Your task to perform on an android device: move a message to another label in the gmail app Image 0: 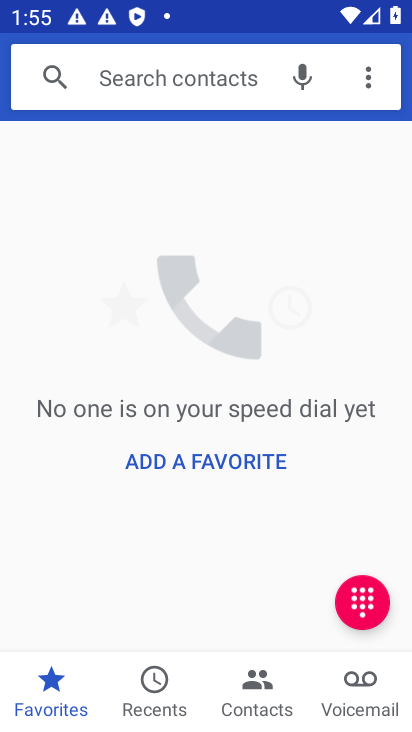
Step 0: press home button
Your task to perform on an android device: move a message to another label in the gmail app Image 1: 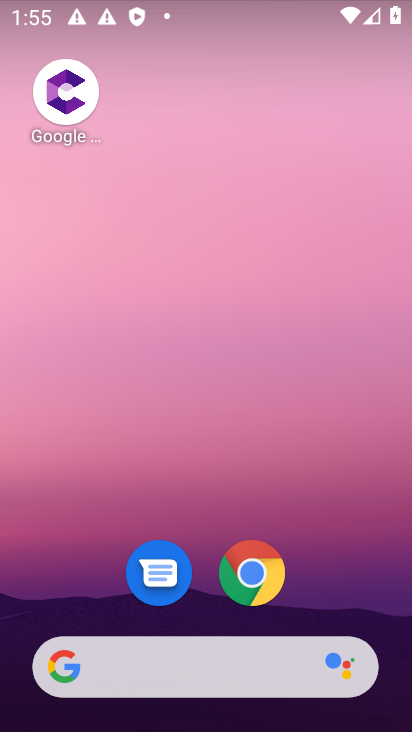
Step 1: drag from (338, 603) to (344, 231)
Your task to perform on an android device: move a message to another label in the gmail app Image 2: 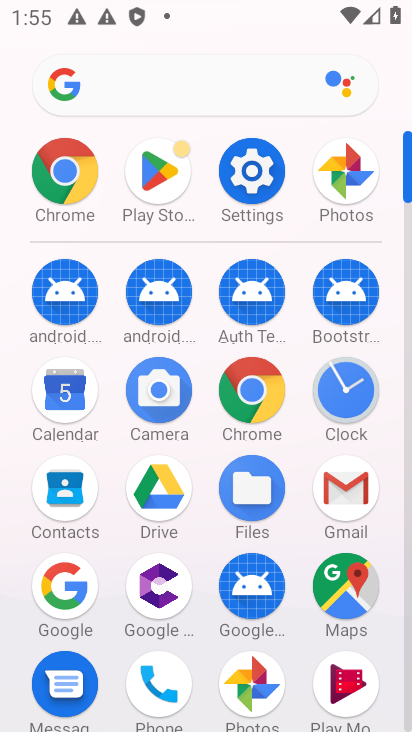
Step 2: click (342, 489)
Your task to perform on an android device: move a message to another label in the gmail app Image 3: 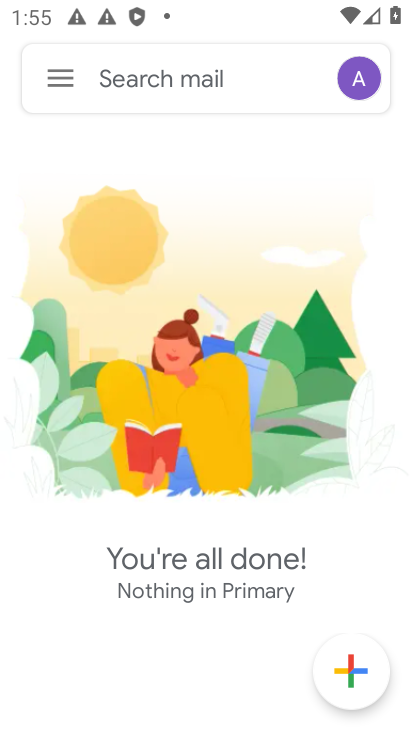
Step 3: click (55, 73)
Your task to perform on an android device: move a message to another label in the gmail app Image 4: 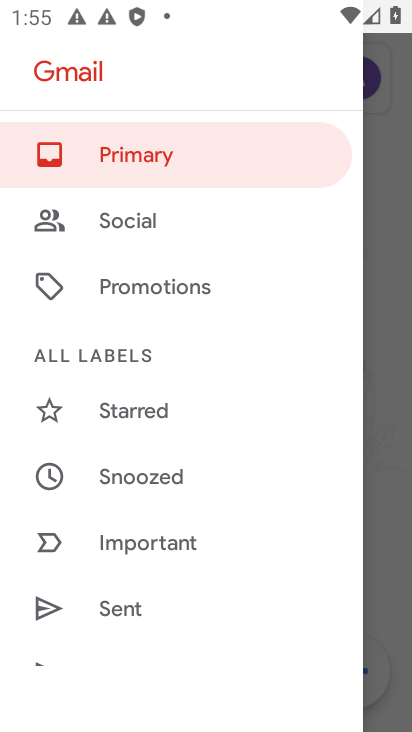
Step 4: drag from (288, 542) to (255, 320)
Your task to perform on an android device: move a message to another label in the gmail app Image 5: 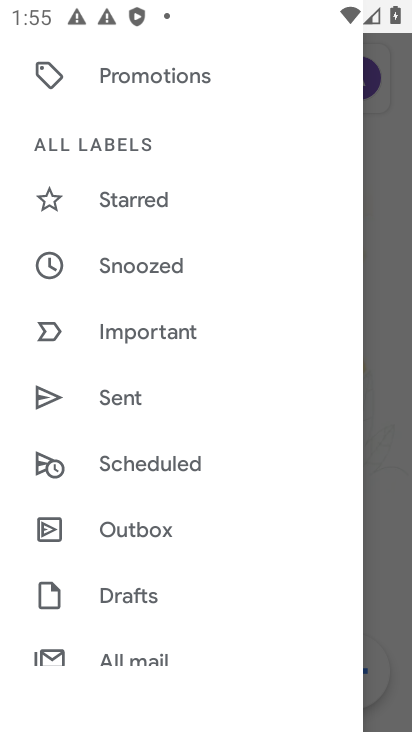
Step 5: drag from (243, 543) to (251, 363)
Your task to perform on an android device: move a message to another label in the gmail app Image 6: 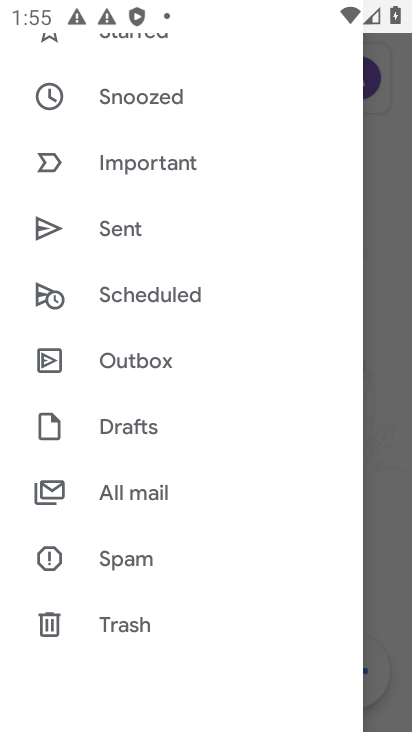
Step 6: click (232, 509)
Your task to perform on an android device: move a message to another label in the gmail app Image 7: 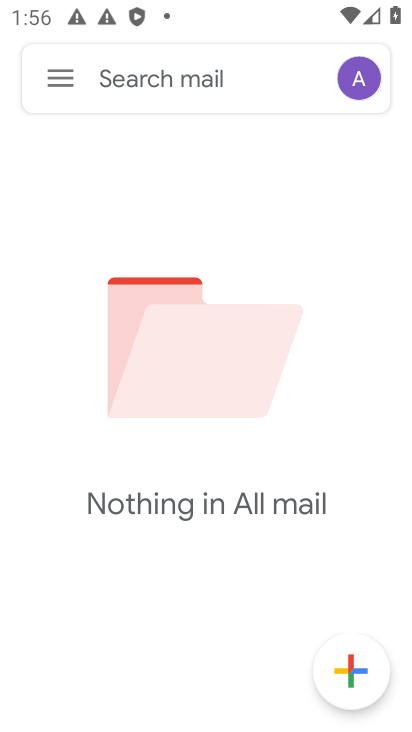
Step 7: task complete